Your task to perform on an android device: toggle notifications settings in the gmail app Image 0: 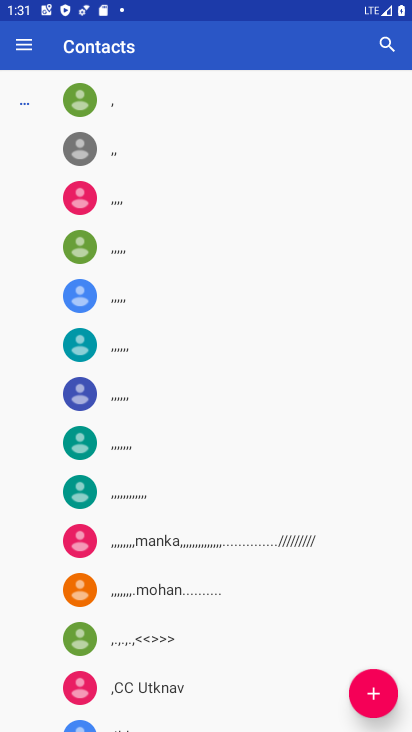
Step 0: press home button
Your task to perform on an android device: toggle notifications settings in the gmail app Image 1: 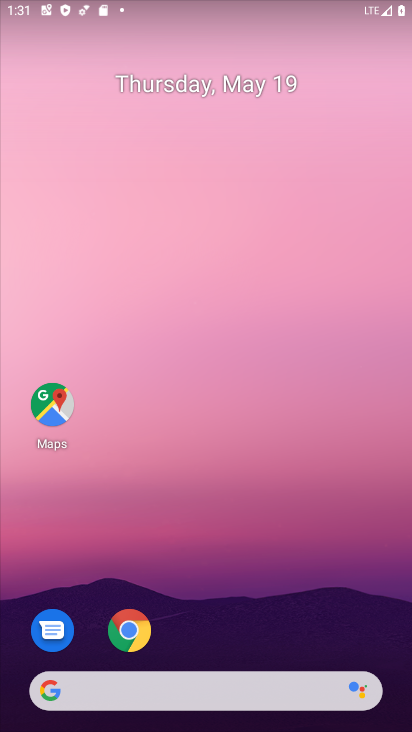
Step 1: drag from (214, 661) to (154, 161)
Your task to perform on an android device: toggle notifications settings in the gmail app Image 2: 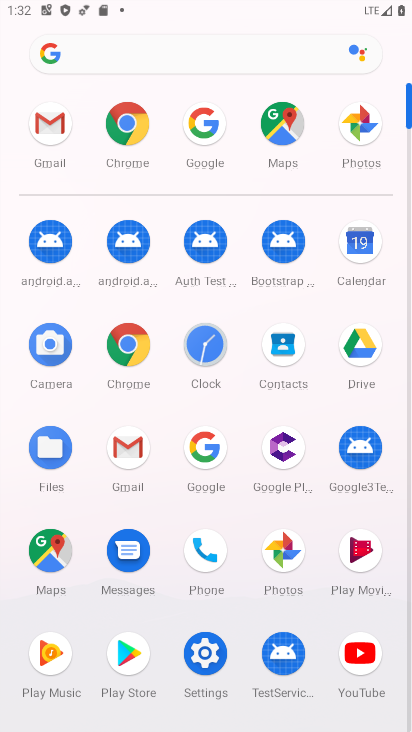
Step 2: click (144, 451)
Your task to perform on an android device: toggle notifications settings in the gmail app Image 3: 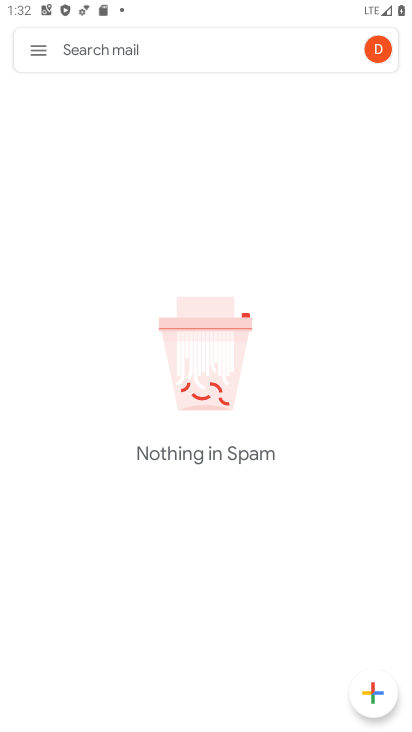
Step 3: click (43, 42)
Your task to perform on an android device: toggle notifications settings in the gmail app Image 4: 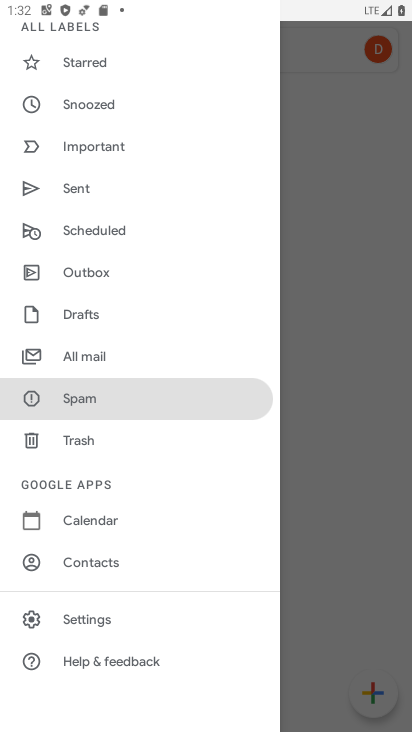
Step 4: click (41, 617)
Your task to perform on an android device: toggle notifications settings in the gmail app Image 5: 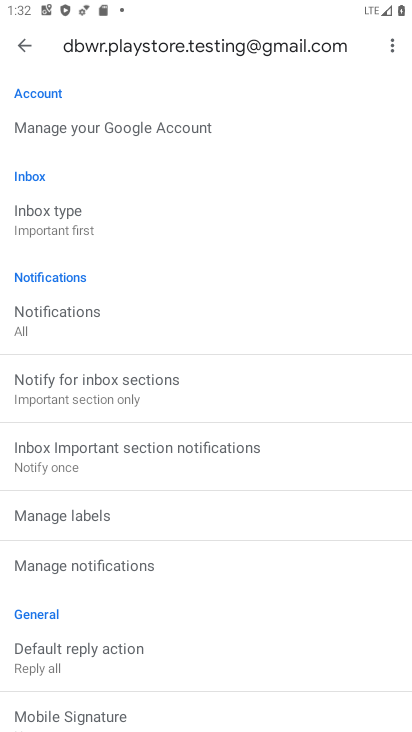
Step 5: click (34, 40)
Your task to perform on an android device: toggle notifications settings in the gmail app Image 6: 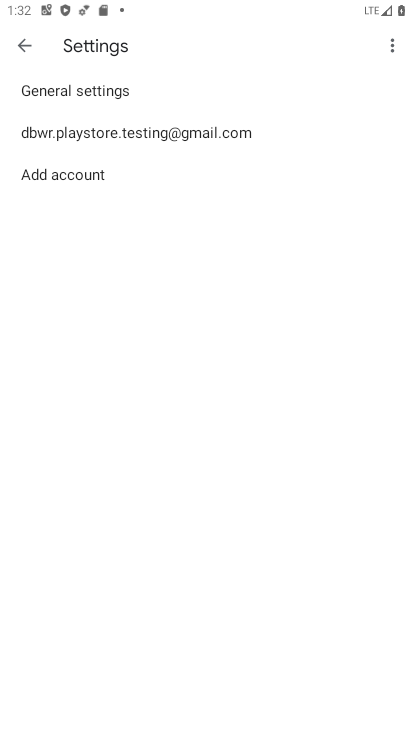
Step 6: click (56, 77)
Your task to perform on an android device: toggle notifications settings in the gmail app Image 7: 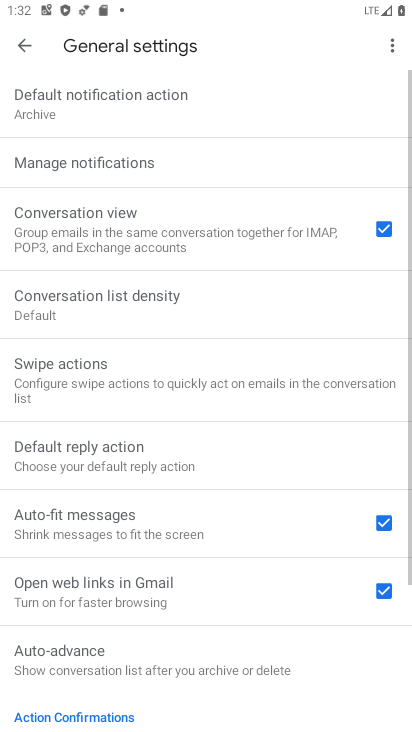
Step 7: click (78, 158)
Your task to perform on an android device: toggle notifications settings in the gmail app Image 8: 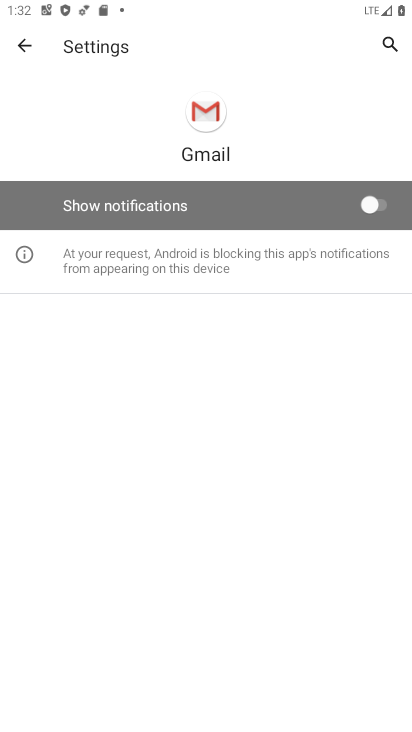
Step 8: click (378, 201)
Your task to perform on an android device: toggle notifications settings in the gmail app Image 9: 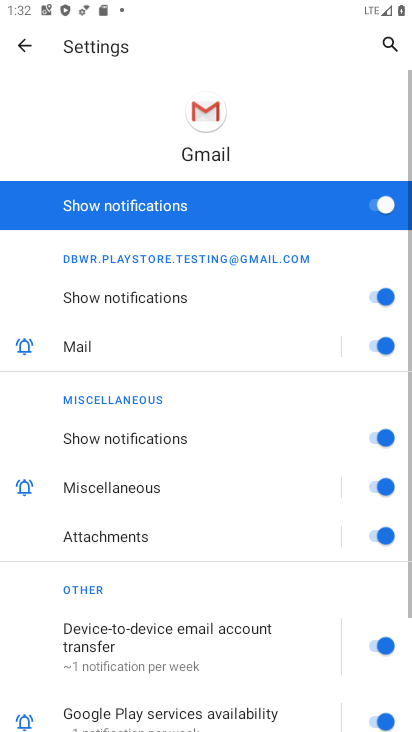
Step 9: task complete